Your task to perform on an android device: toggle javascript in the chrome app Image 0: 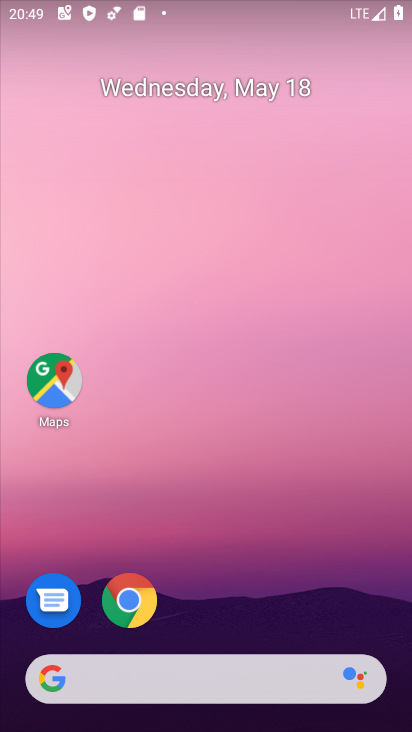
Step 0: click (130, 594)
Your task to perform on an android device: toggle javascript in the chrome app Image 1: 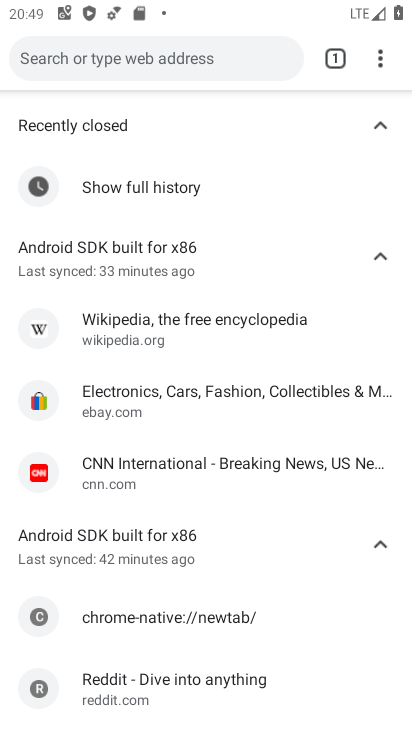
Step 1: click (386, 52)
Your task to perform on an android device: toggle javascript in the chrome app Image 2: 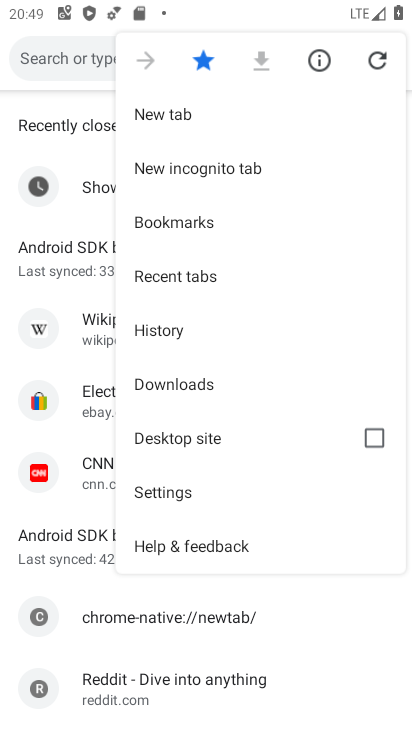
Step 2: click (178, 495)
Your task to perform on an android device: toggle javascript in the chrome app Image 3: 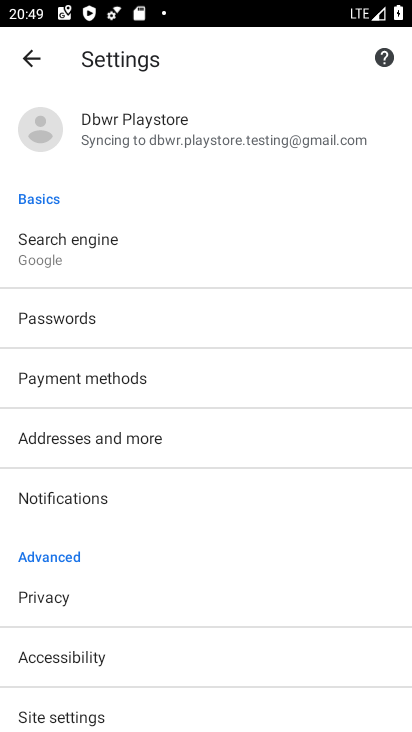
Step 3: drag from (179, 550) to (301, 96)
Your task to perform on an android device: toggle javascript in the chrome app Image 4: 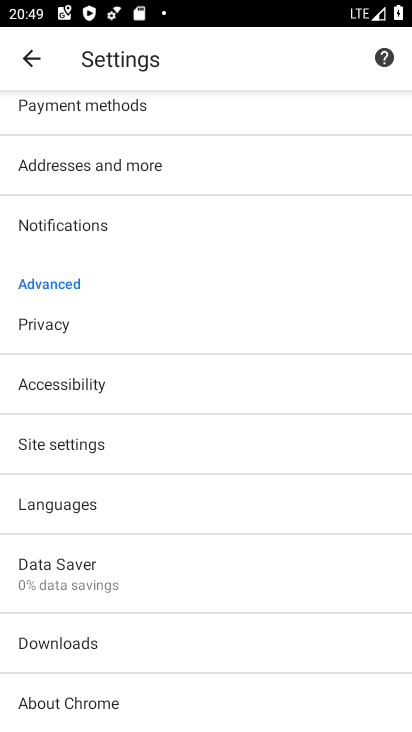
Step 4: click (80, 450)
Your task to perform on an android device: toggle javascript in the chrome app Image 5: 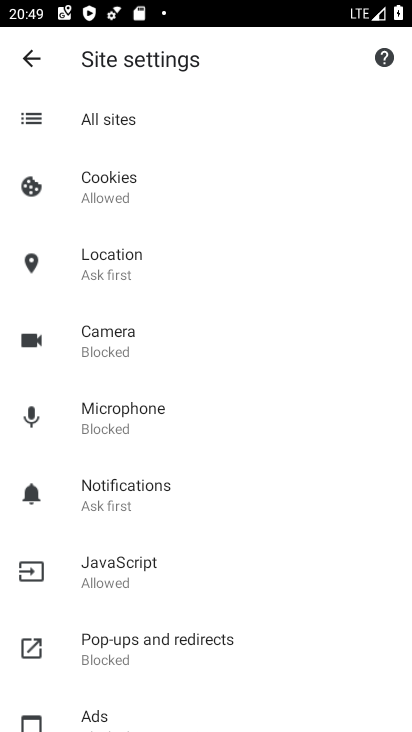
Step 5: click (99, 591)
Your task to perform on an android device: toggle javascript in the chrome app Image 6: 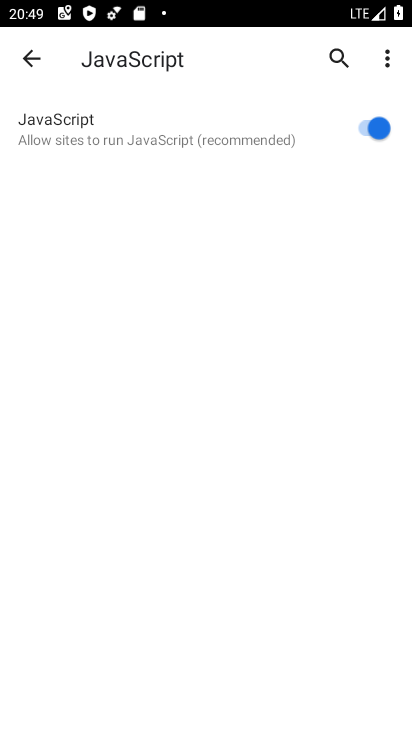
Step 6: click (375, 128)
Your task to perform on an android device: toggle javascript in the chrome app Image 7: 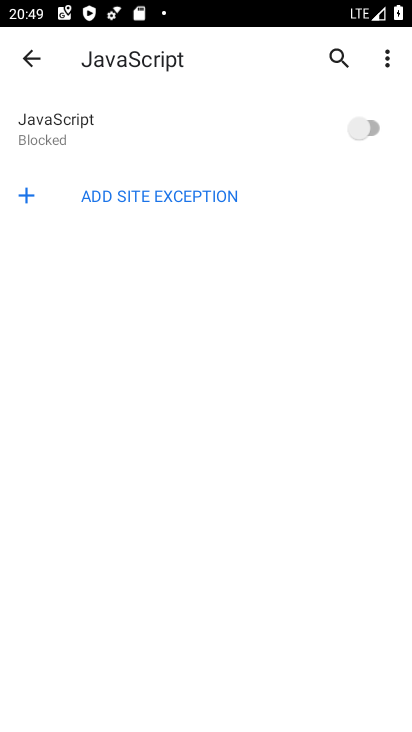
Step 7: task complete